Your task to perform on an android device: Search for the best 4K TV Image 0: 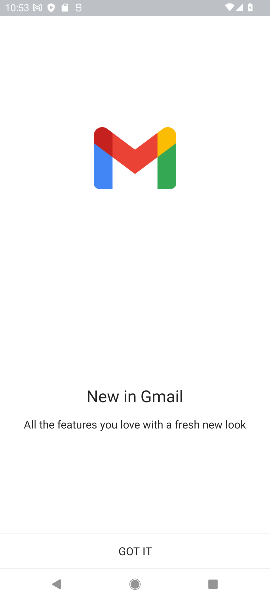
Step 0: press home button
Your task to perform on an android device: Search for the best 4K TV Image 1: 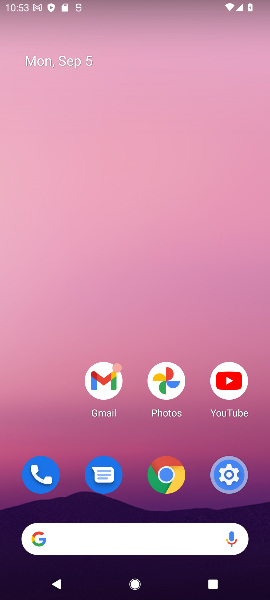
Step 1: drag from (119, 457) to (101, 43)
Your task to perform on an android device: Search for the best 4K TV Image 2: 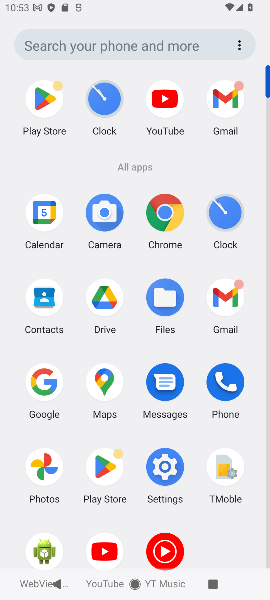
Step 2: click (43, 384)
Your task to perform on an android device: Search for the best 4K TV Image 3: 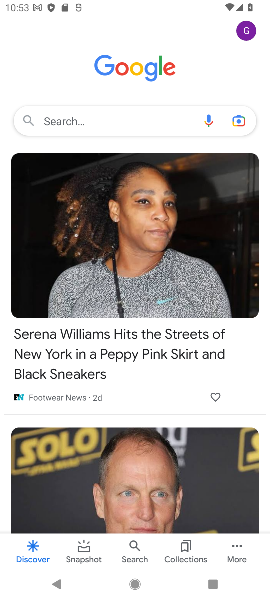
Step 3: click (92, 108)
Your task to perform on an android device: Search for the best 4K TV Image 4: 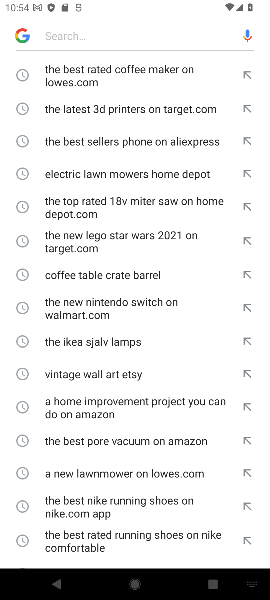
Step 4: type "the best 4K TV"
Your task to perform on an android device: Search for the best 4K TV Image 5: 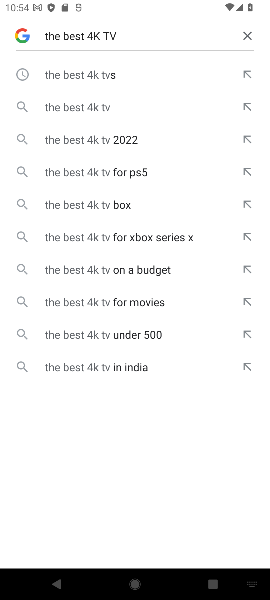
Step 5: click (82, 72)
Your task to perform on an android device: Search for the best 4K TV Image 6: 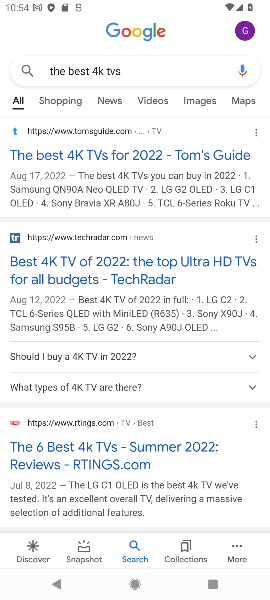
Step 6: task complete